Your task to perform on an android device: Do I have any events today? Image 0: 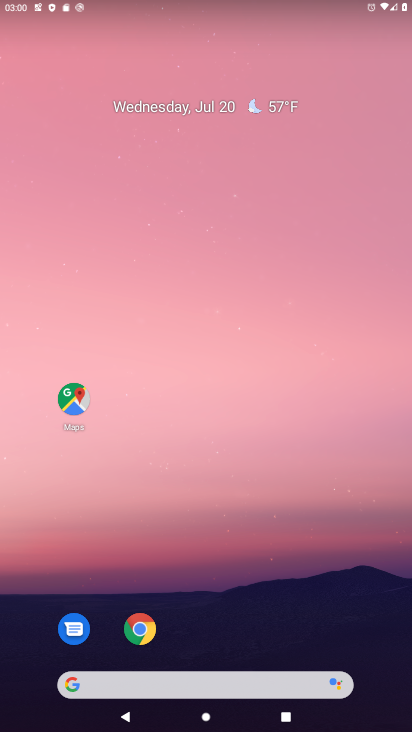
Step 0: drag from (379, 654) to (370, 110)
Your task to perform on an android device: Do I have any events today? Image 1: 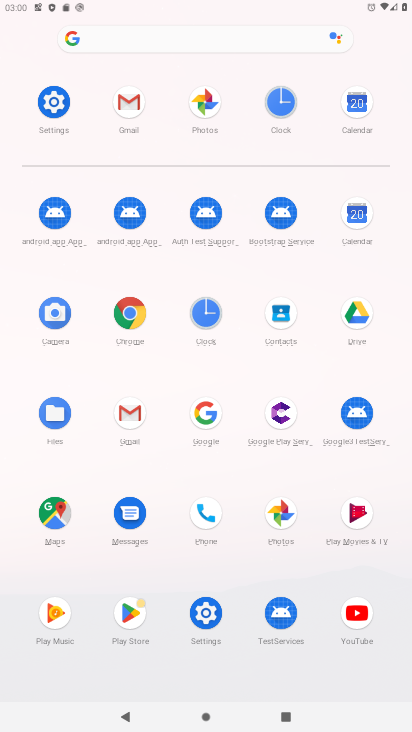
Step 1: click (359, 216)
Your task to perform on an android device: Do I have any events today? Image 2: 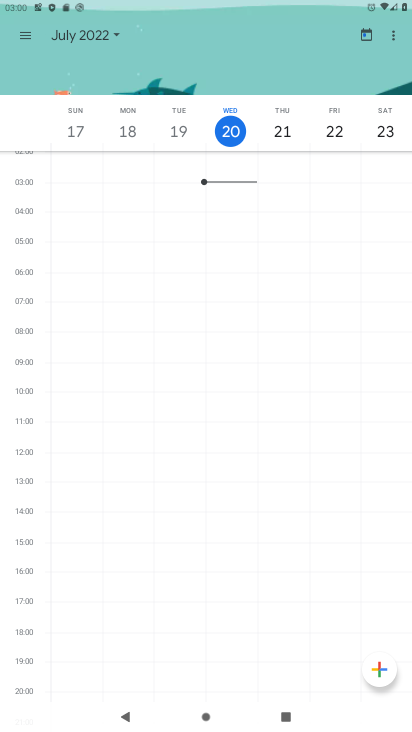
Step 2: click (22, 38)
Your task to perform on an android device: Do I have any events today? Image 3: 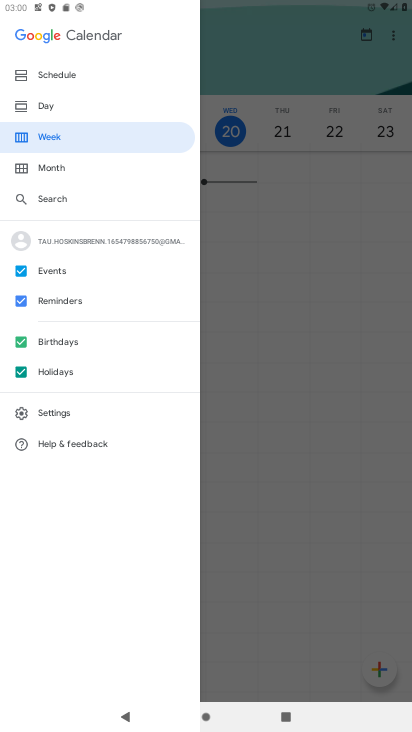
Step 3: click (43, 102)
Your task to perform on an android device: Do I have any events today? Image 4: 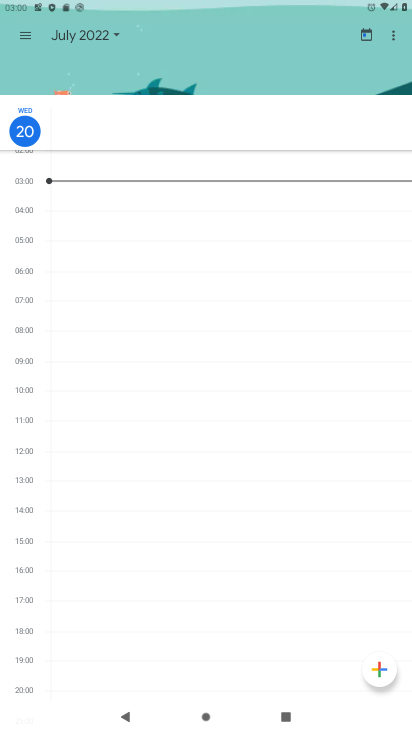
Step 4: click (118, 38)
Your task to perform on an android device: Do I have any events today? Image 5: 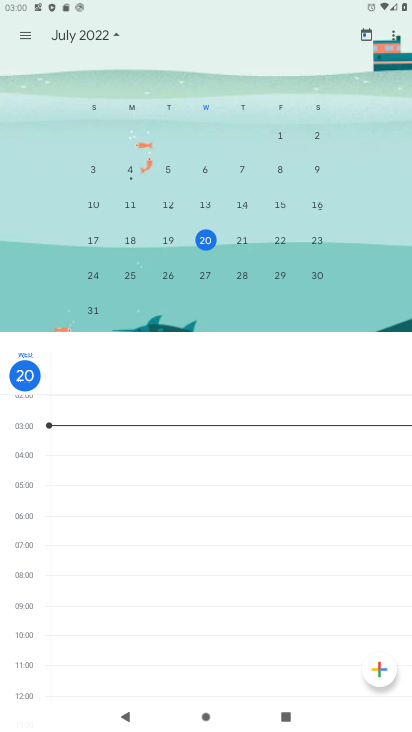
Step 5: task complete